Your task to perform on an android device: turn off data saver in the chrome app Image 0: 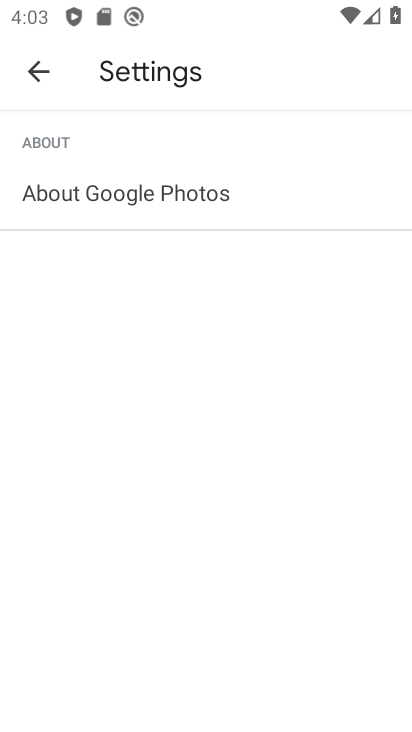
Step 0: press home button
Your task to perform on an android device: turn off data saver in the chrome app Image 1: 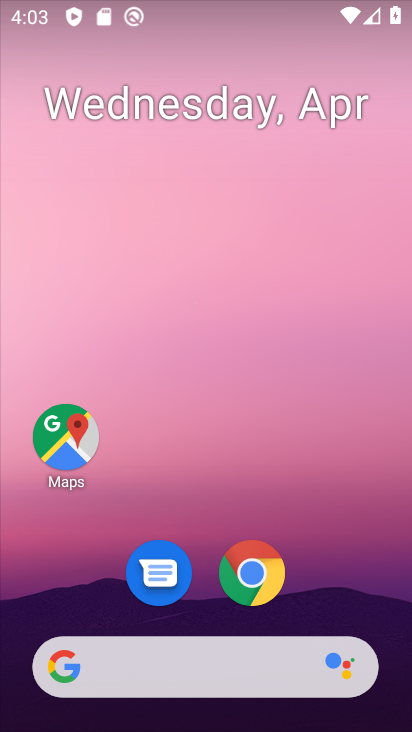
Step 1: click (254, 576)
Your task to perform on an android device: turn off data saver in the chrome app Image 2: 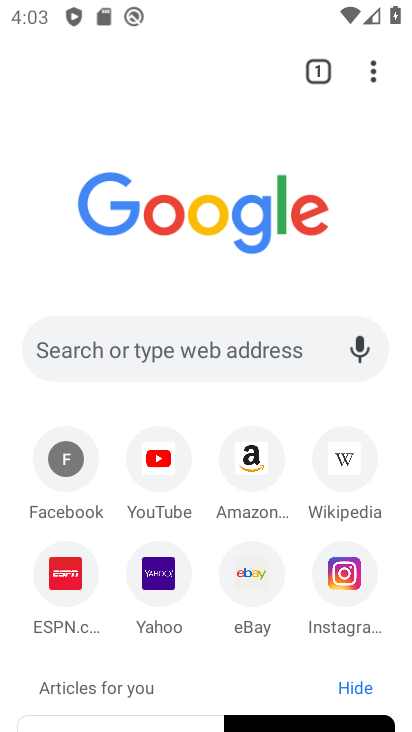
Step 2: click (372, 73)
Your task to perform on an android device: turn off data saver in the chrome app Image 3: 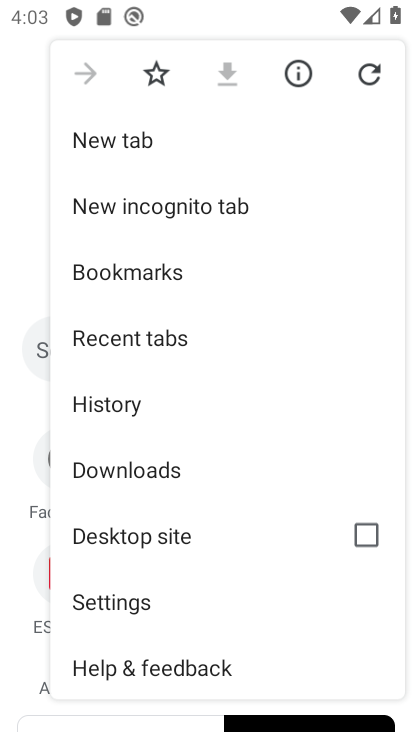
Step 3: drag from (190, 542) to (190, 235)
Your task to perform on an android device: turn off data saver in the chrome app Image 4: 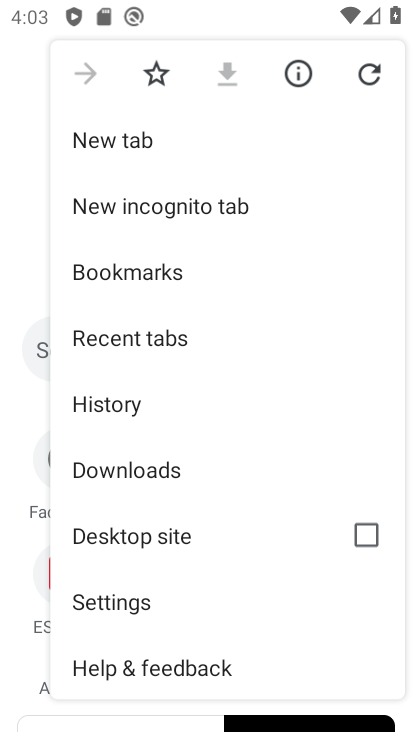
Step 4: click (126, 600)
Your task to perform on an android device: turn off data saver in the chrome app Image 5: 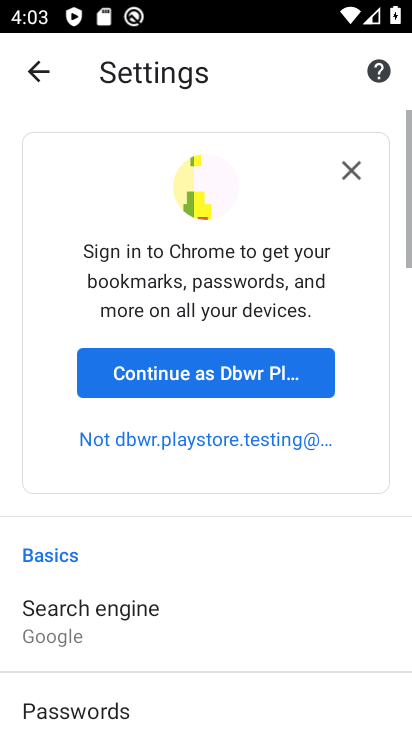
Step 5: drag from (184, 641) to (188, 246)
Your task to perform on an android device: turn off data saver in the chrome app Image 6: 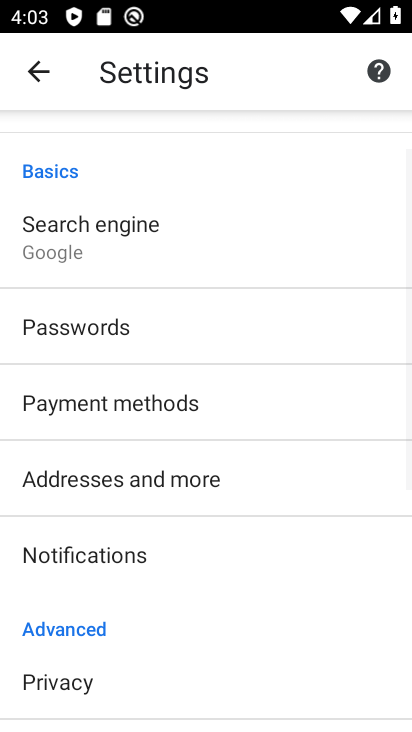
Step 6: drag from (223, 614) to (208, 261)
Your task to perform on an android device: turn off data saver in the chrome app Image 7: 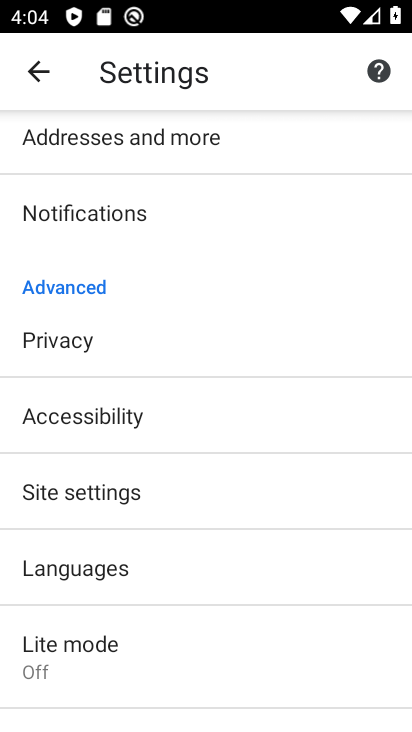
Step 7: click (70, 652)
Your task to perform on an android device: turn off data saver in the chrome app Image 8: 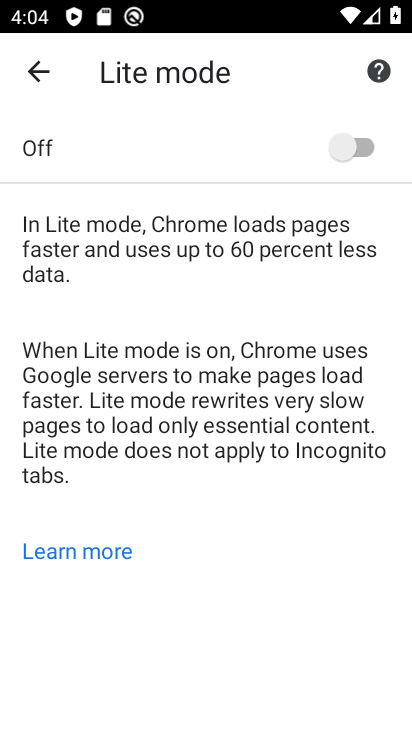
Step 8: task complete